Your task to perform on an android device: see tabs open on other devices in the chrome app Image 0: 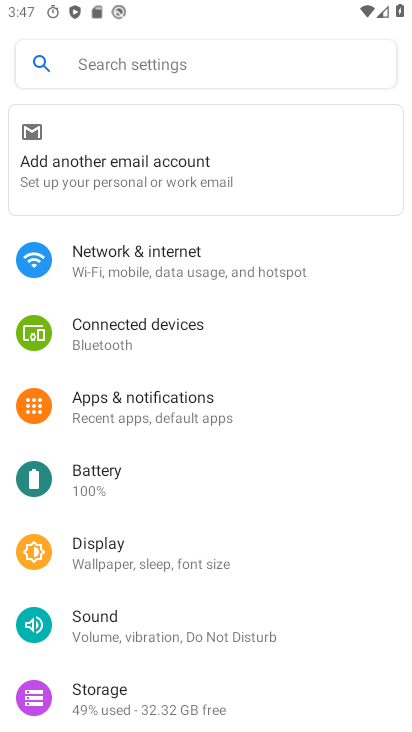
Step 0: press home button
Your task to perform on an android device: see tabs open on other devices in the chrome app Image 1: 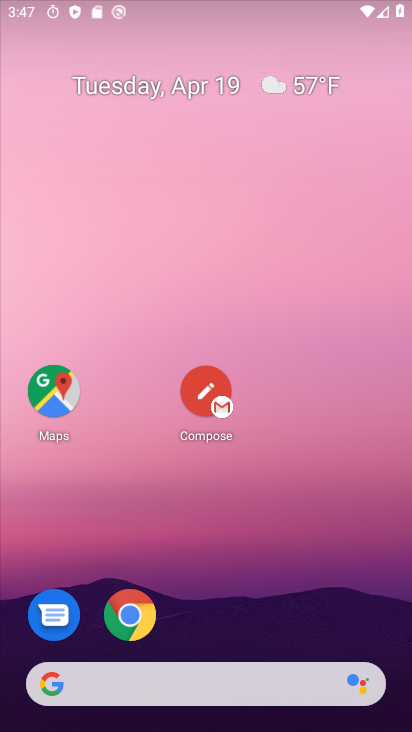
Step 1: drag from (328, 655) to (312, 119)
Your task to perform on an android device: see tabs open on other devices in the chrome app Image 2: 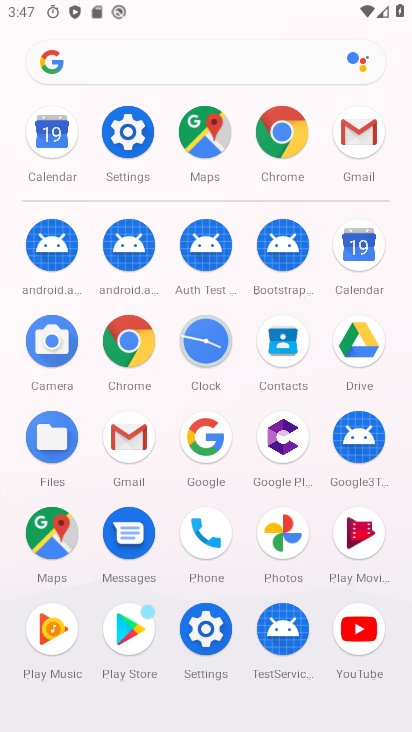
Step 2: click (141, 339)
Your task to perform on an android device: see tabs open on other devices in the chrome app Image 3: 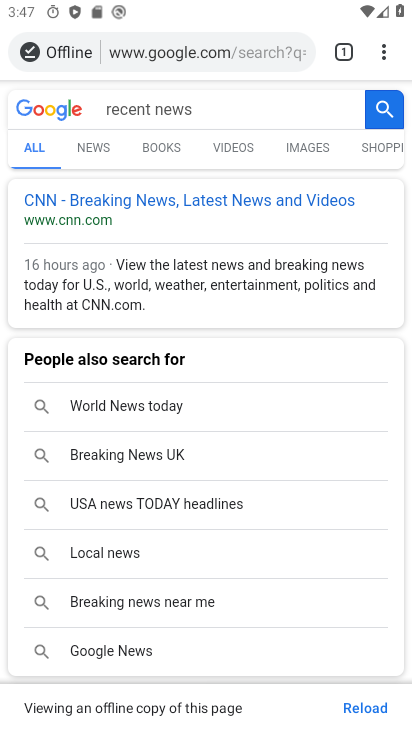
Step 3: click (379, 55)
Your task to perform on an android device: see tabs open on other devices in the chrome app Image 4: 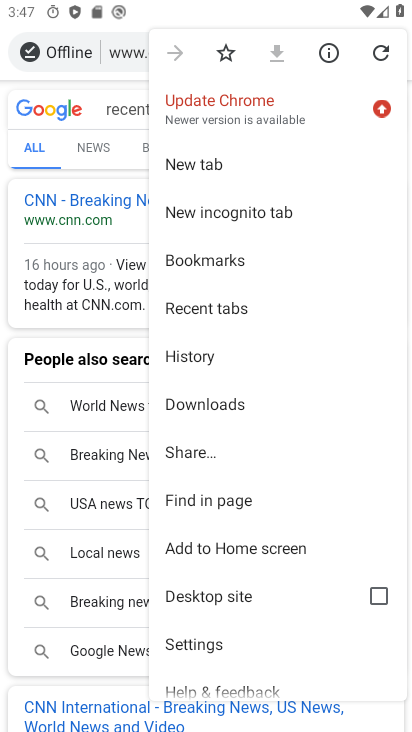
Step 4: click (232, 315)
Your task to perform on an android device: see tabs open on other devices in the chrome app Image 5: 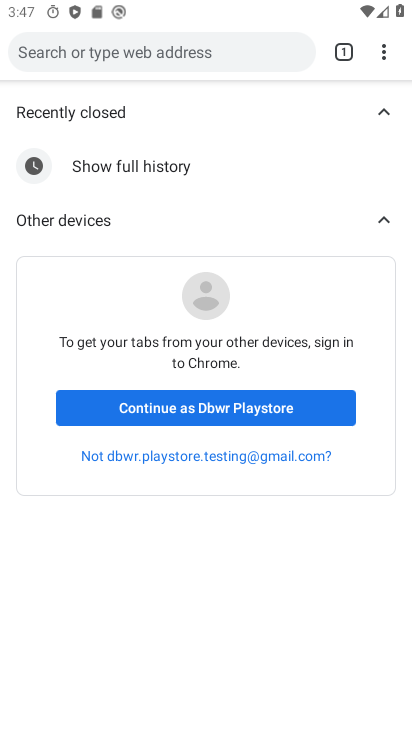
Step 5: task complete